Your task to perform on an android device: allow notifications from all sites in the chrome app Image 0: 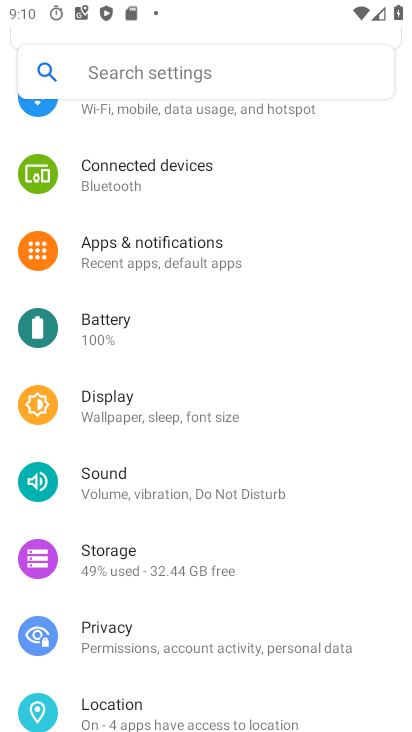
Step 0: press back button
Your task to perform on an android device: allow notifications from all sites in the chrome app Image 1: 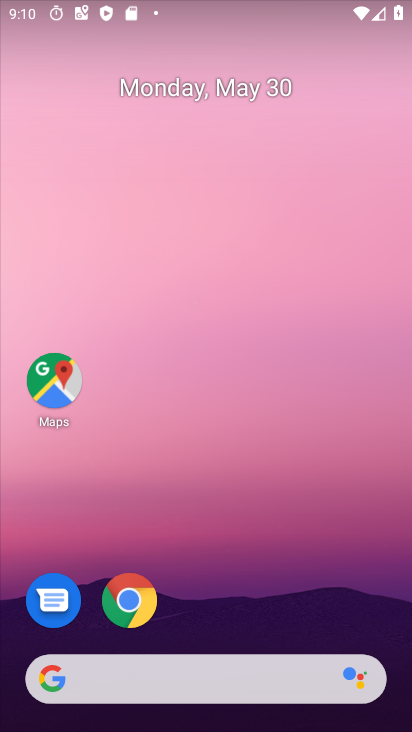
Step 1: drag from (271, 604) to (229, 30)
Your task to perform on an android device: allow notifications from all sites in the chrome app Image 2: 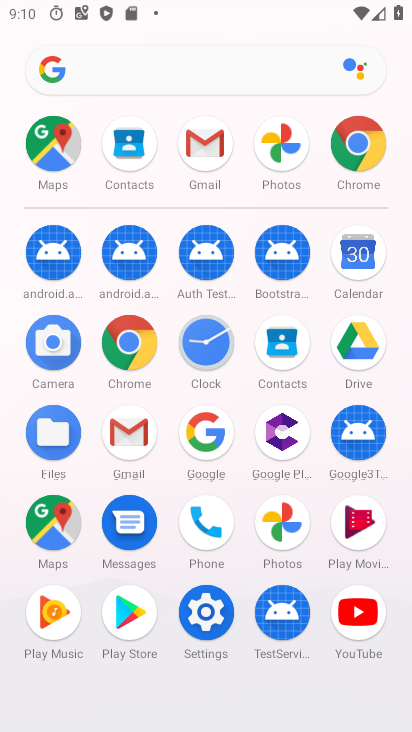
Step 2: drag from (14, 589) to (9, 229)
Your task to perform on an android device: allow notifications from all sites in the chrome app Image 3: 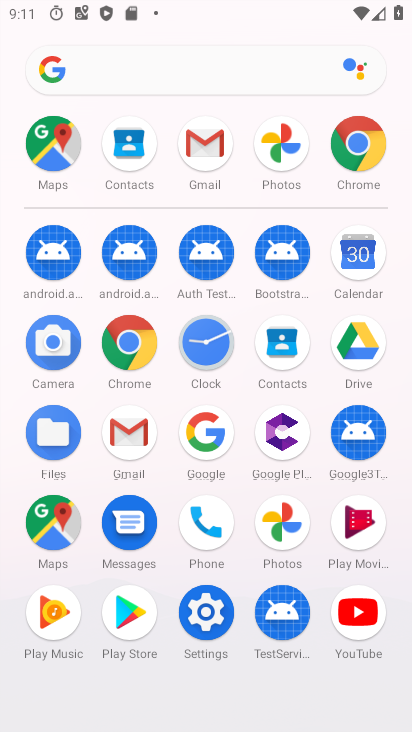
Step 3: click (125, 343)
Your task to perform on an android device: allow notifications from all sites in the chrome app Image 4: 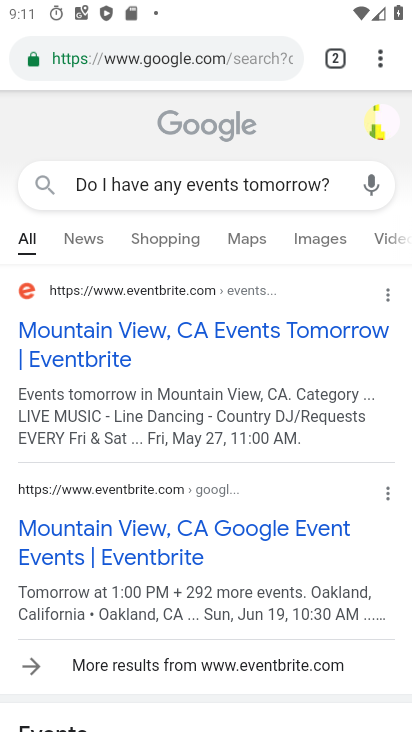
Step 4: drag from (380, 56) to (175, 643)
Your task to perform on an android device: allow notifications from all sites in the chrome app Image 5: 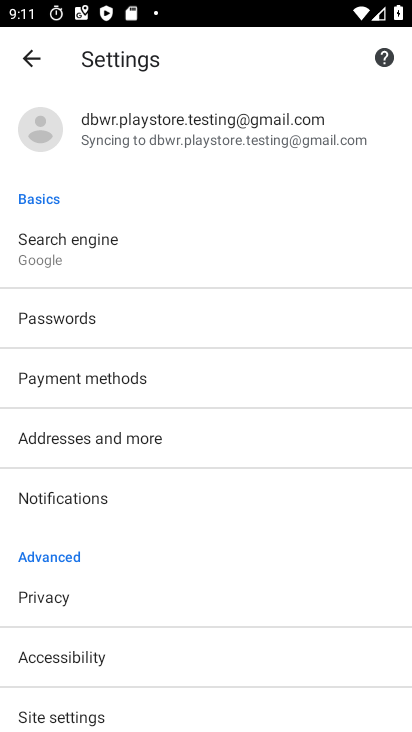
Step 5: click (100, 500)
Your task to perform on an android device: allow notifications from all sites in the chrome app Image 6: 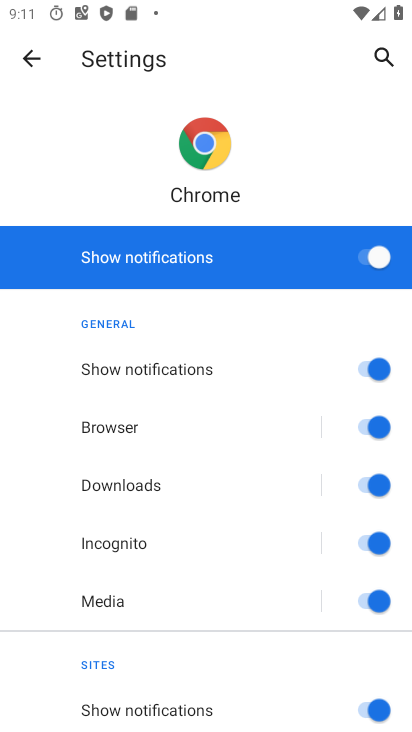
Step 6: click (35, 49)
Your task to perform on an android device: allow notifications from all sites in the chrome app Image 7: 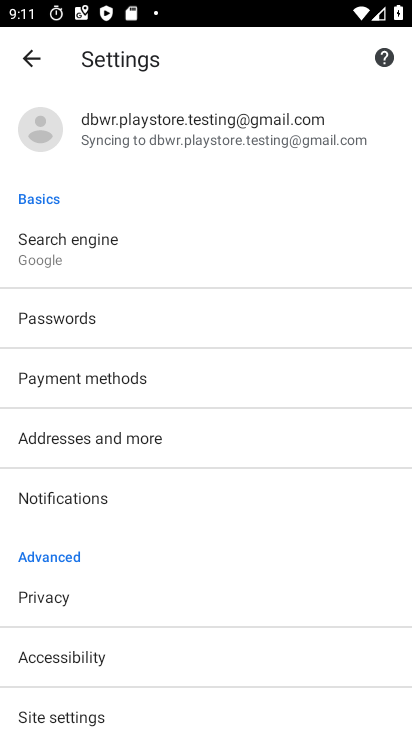
Step 7: drag from (221, 628) to (245, 282)
Your task to perform on an android device: allow notifications from all sites in the chrome app Image 8: 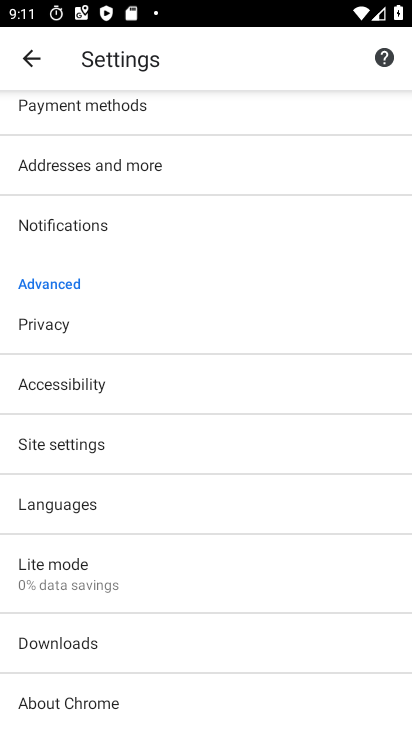
Step 8: click (101, 433)
Your task to perform on an android device: allow notifications from all sites in the chrome app Image 9: 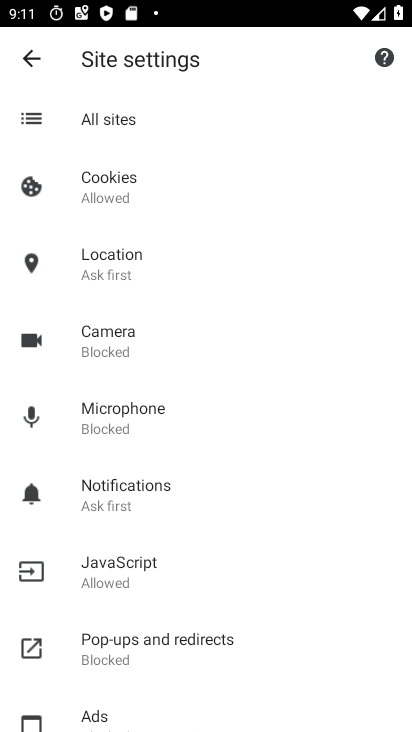
Step 9: click (140, 490)
Your task to perform on an android device: allow notifications from all sites in the chrome app Image 10: 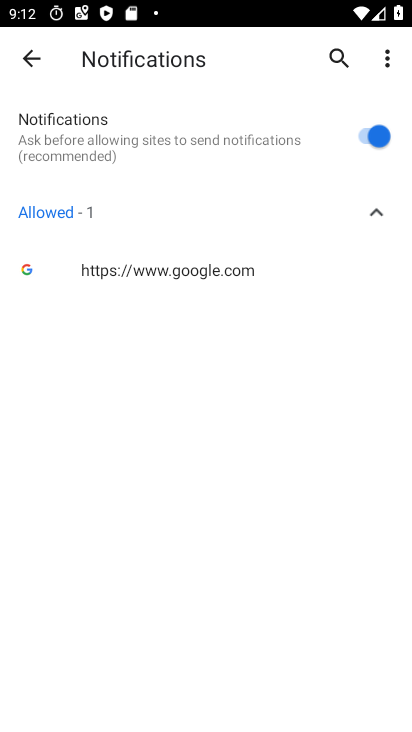
Step 10: task complete